Your task to perform on an android device: turn on airplane mode Image 0: 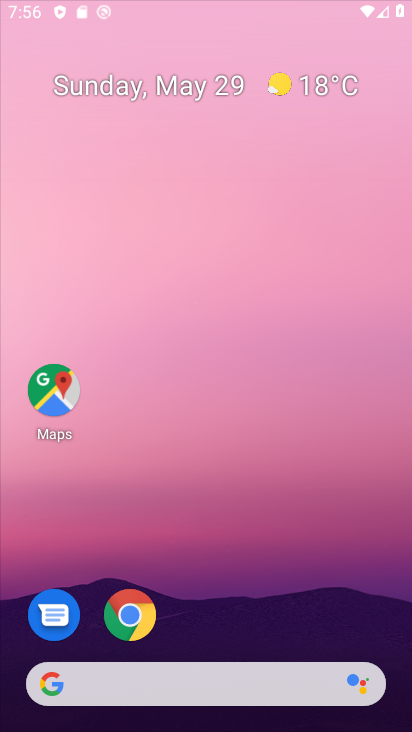
Step 0: click (135, 688)
Your task to perform on an android device: turn on airplane mode Image 1: 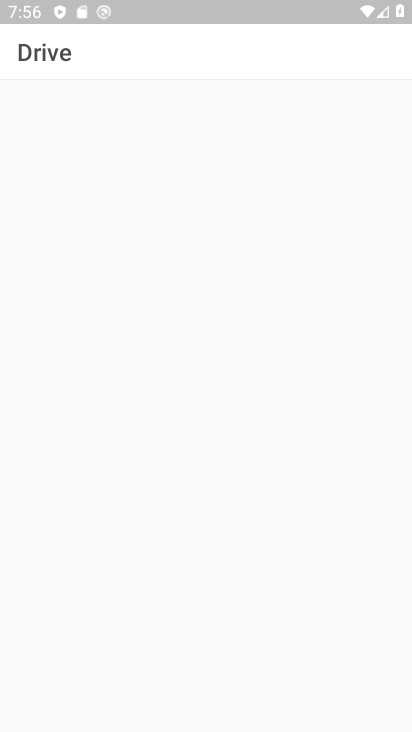
Step 1: press home button
Your task to perform on an android device: turn on airplane mode Image 2: 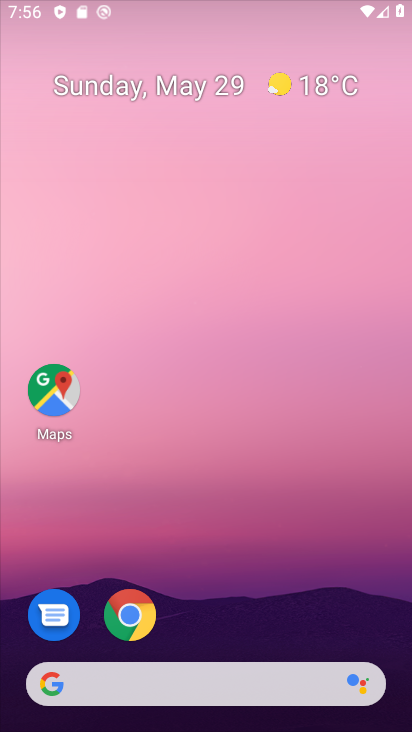
Step 2: drag from (260, 5) to (225, 731)
Your task to perform on an android device: turn on airplane mode Image 3: 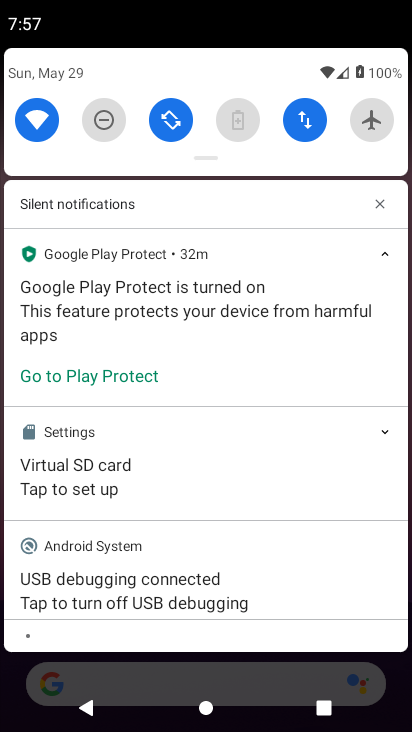
Step 3: click (377, 133)
Your task to perform on an android device: turn on airplane mode Image 4: 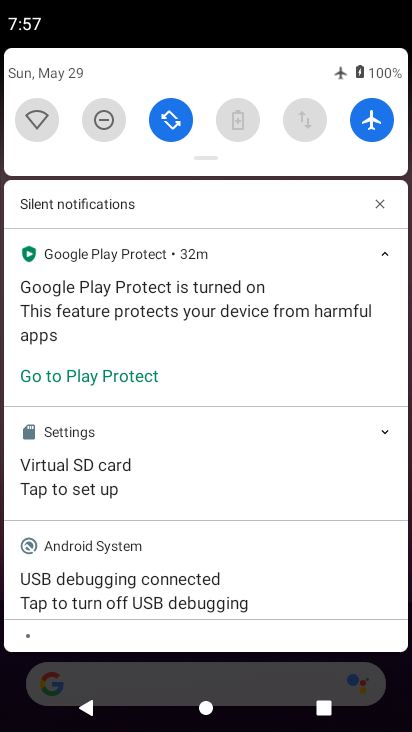
Step 4: task complete